Your task to perform on an android device: check storage Image 0: 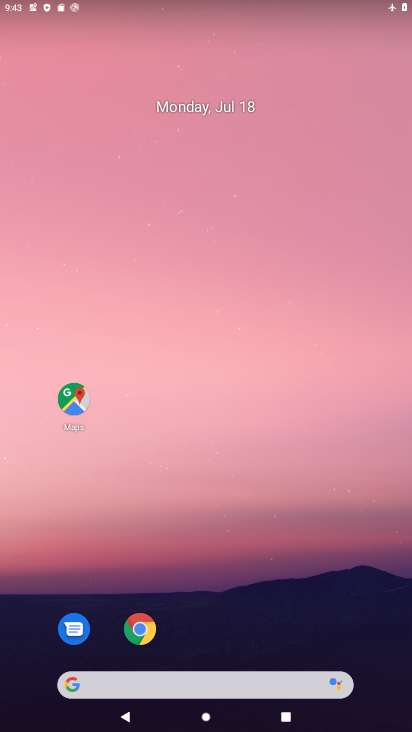
Step 0: drag from (258, 626) to (140, 98)
Your task to perform on an android device: check storage Image 1: 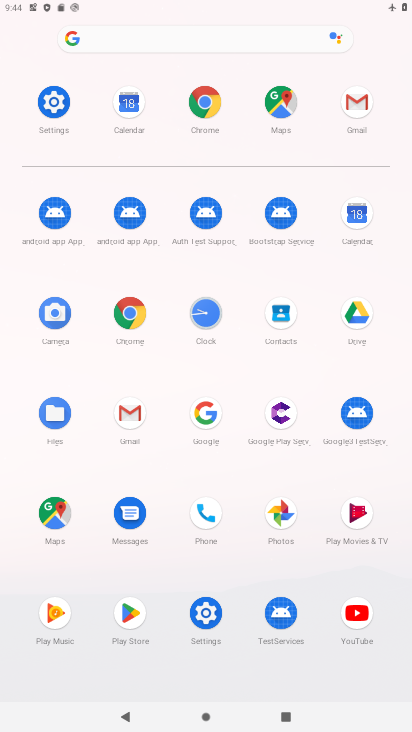
Step 1: click (45, 106)
Your task to perform on an android device: check storage Image 2: 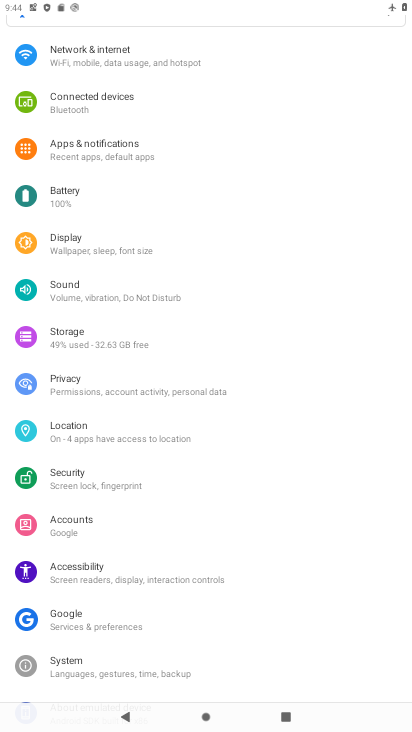
Step 2: click (99, 335)
Your task to perform on an android device: check storage Image 3: 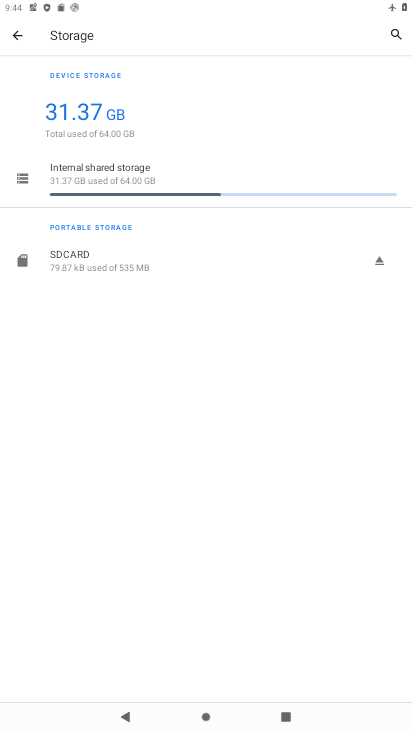
Step 3: task complete